Your task to perform on an android device: search for starred emails in the gmail app Image 0: 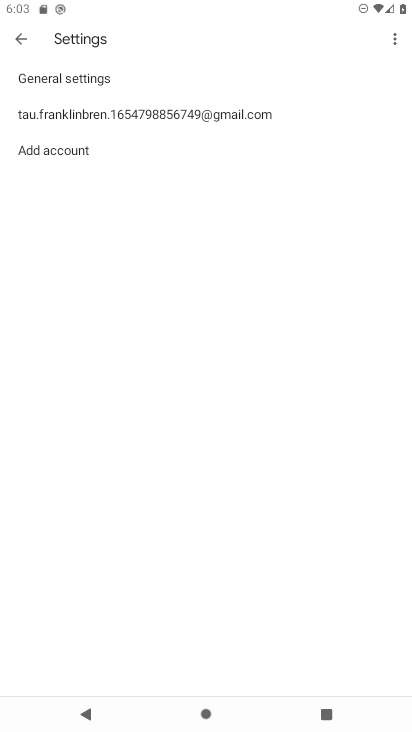
Step 0: press home button
Your task to perform on an android device: search for starred emails in the gmail app Image 1: 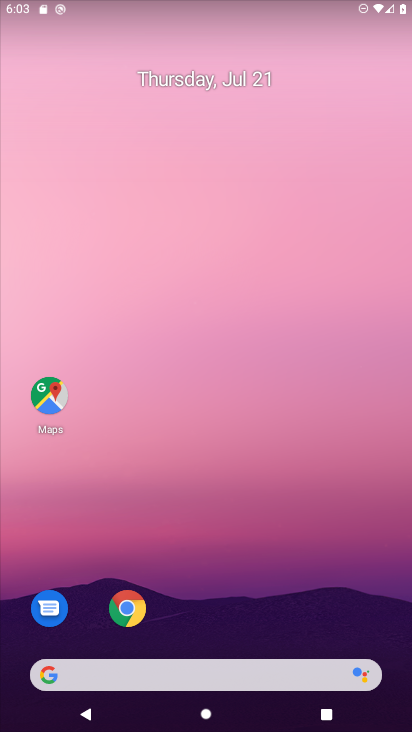
Step 1: drag from (191, 675) to (275, 66)
Your task to perform on an android device: search for starred emails in the gmail app Image 2: 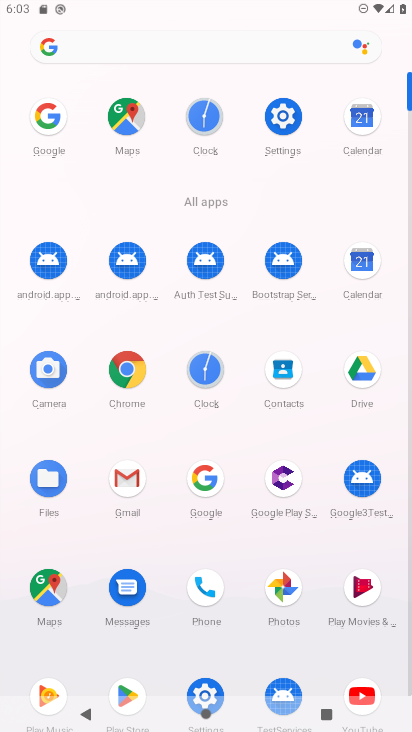
Step 2: click (128, 475)
Your task to perform on an android device: search for starred emails in the gmail app Image 3: 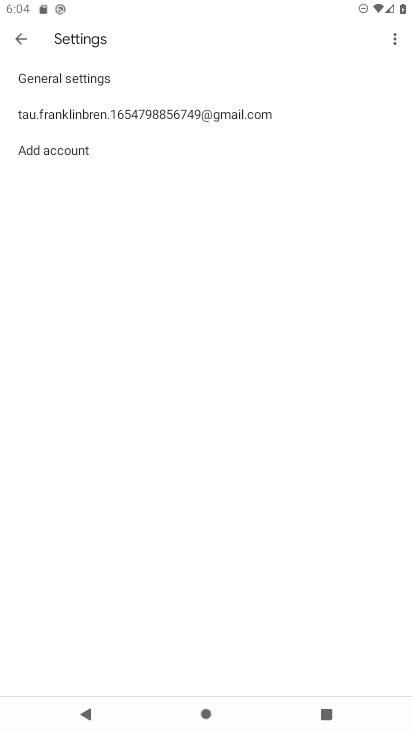
Step 3: press back button
Your task to perform on an android device: search for starred emails in the gmail app Image 4: 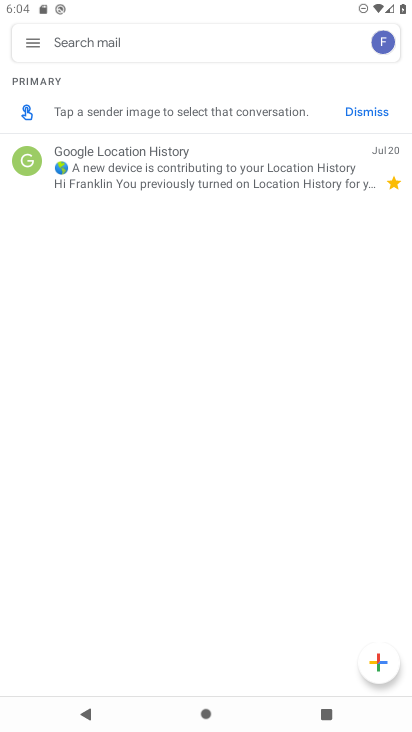
Step 4: click (273, 184)
Your task to perform on an android device: search for starred emails in the gmail app Image 5: 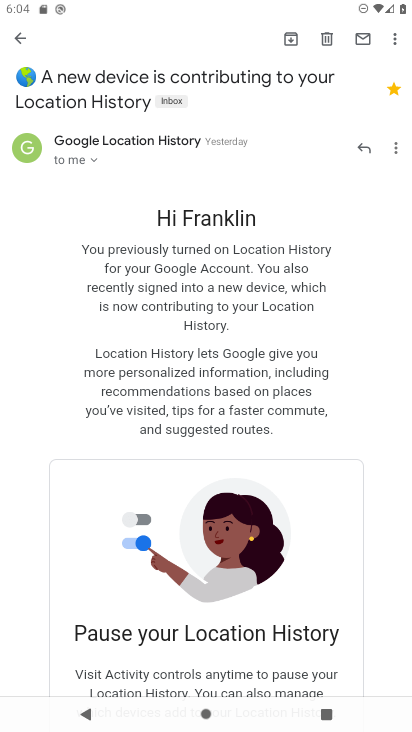
Step 5: task complete